Your task to perform on an android device: When is my next appointment? Image 0: 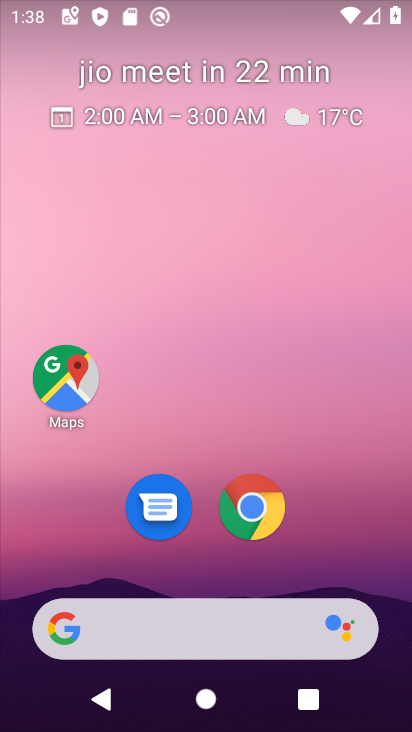
Step 0: drag from (308, 550) to (296, 1)
Your task to perform on an android device: When is my next appointment? Image 1: 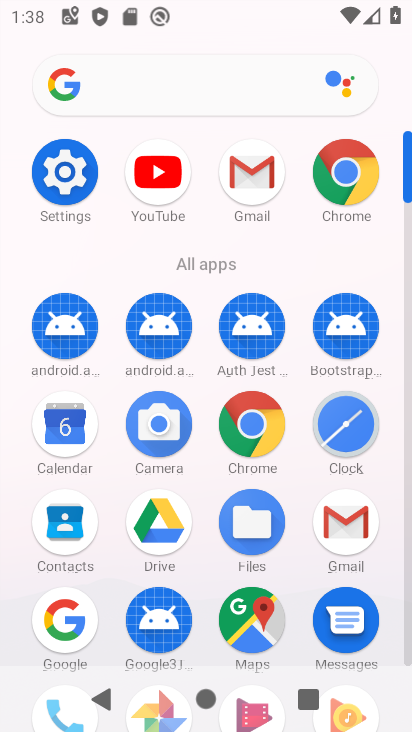
Step 1: drag from (18, 499) to (3, 308)
Your task to perform on an android device: When is my next appointment? Image 2: 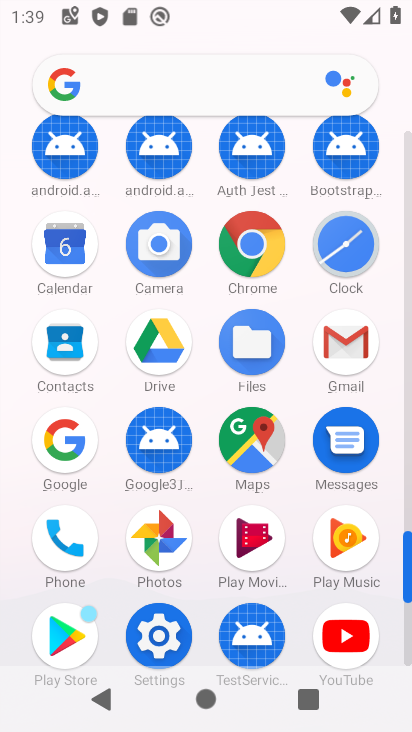
Step 2: drag from (12, 578) to (14, 202)
Your task to perform on an android device: When is my next appointment? Image 3: 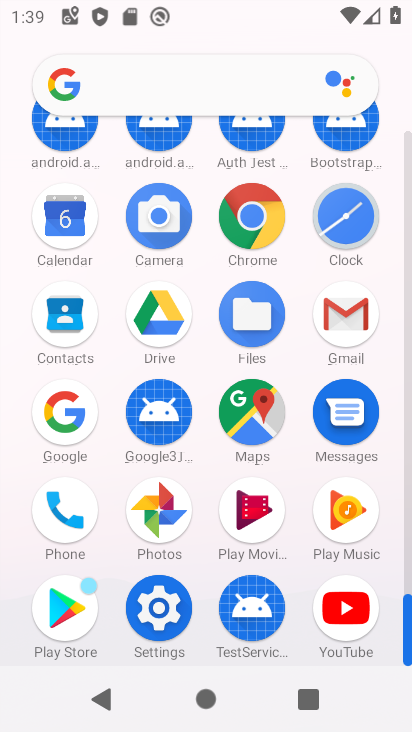
Step 3: drag from (26, 509) to (19, 204)
Your task to perform on an android device: When is my next appointment? Image 4: 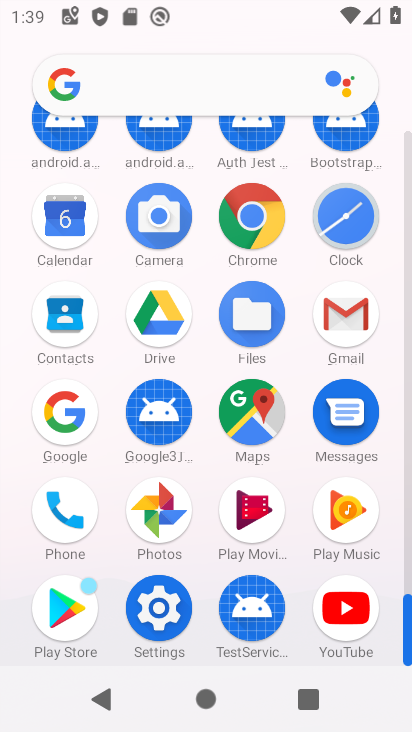
Step 4: drag from (7, 143) to (27, 487)
Your task to perform on an android device: When is my next appointment? Image 5: 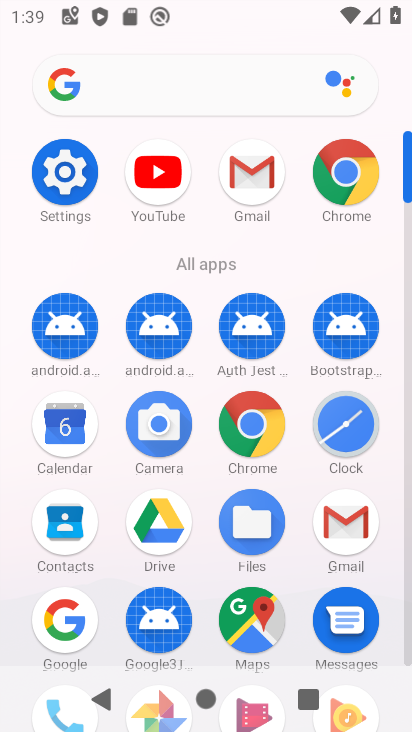
Step 5: drag from (12, 604) to (32, 256)
Your task to perform on an android device: When is my next appointment? Image 6: 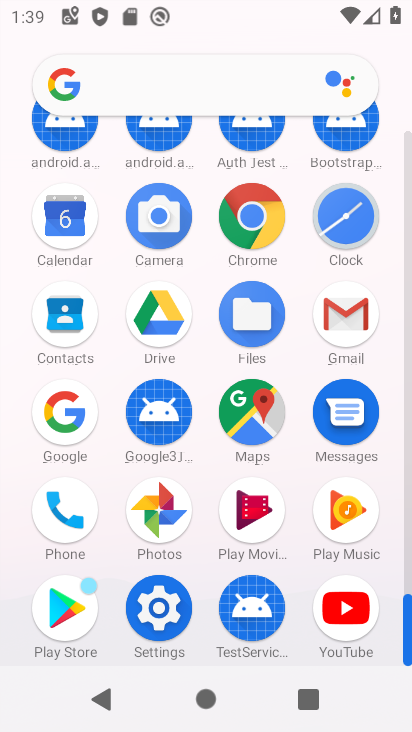
Step 6: drag from (40, 109) to (45, 436)
Your task to perform on an android device: When is my next appointment? Image 7: 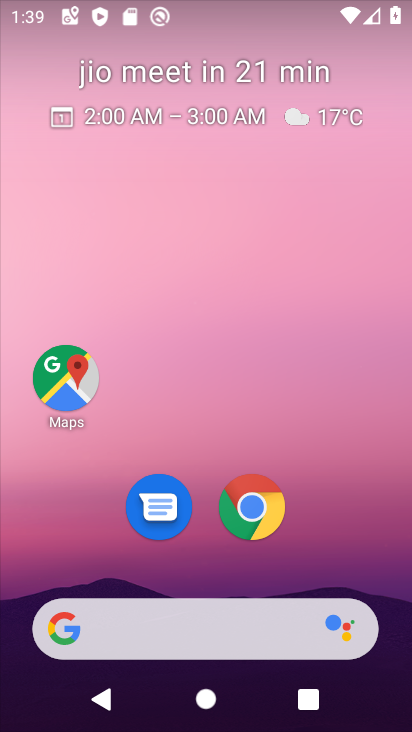
Step 7: drag from (368, 570) to (291, 27)
Your task to perform on an android device: When is my next appointment? Image 8: 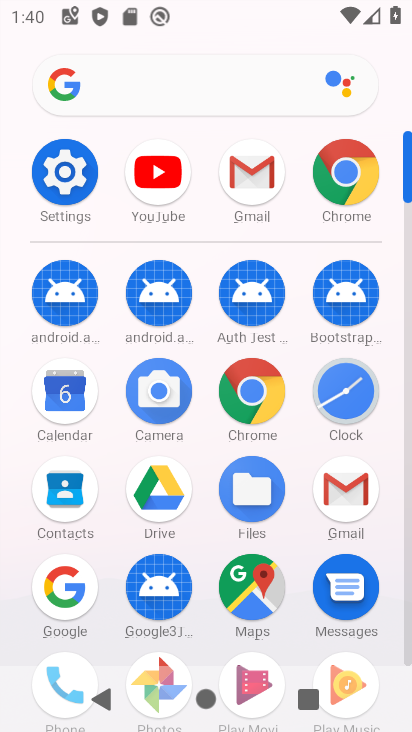
Step 8: drag from (3, 577) to (115, 14)
Your task to perform on an android device: When is my next appointment? Image 9: 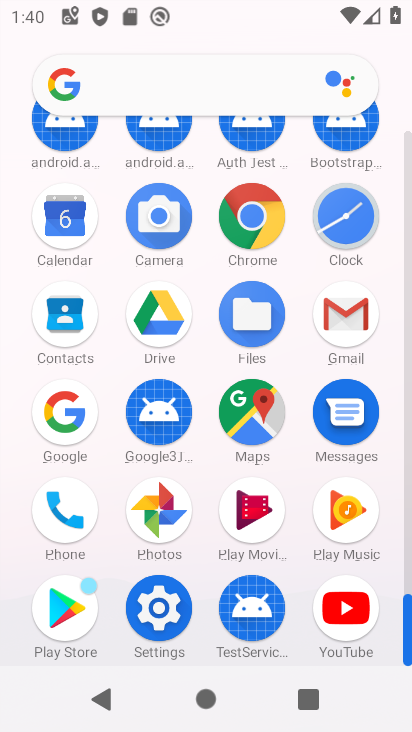
Step 9: click (71, 273)
Your task to perform on an android device: When is my next appointment? Image 10: 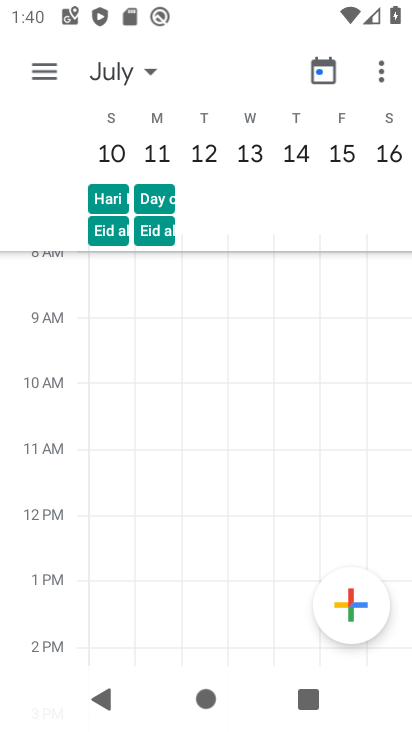
Step 10: click (54, 74)
Your task to perform on an android device: When is my next appointment? Image 11: 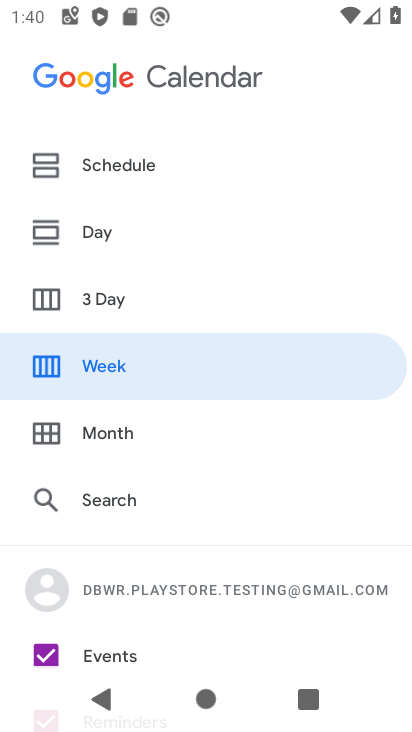
Step 11: click (145, 170)
Your task to perform on an android device: When is my next appointment? Image 12: 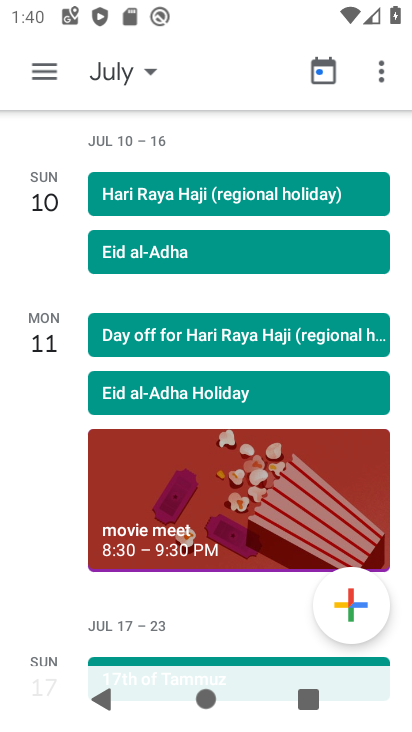
Step 12: task complete